Your task to perform on an android device: Go to CNN.com Image 0: 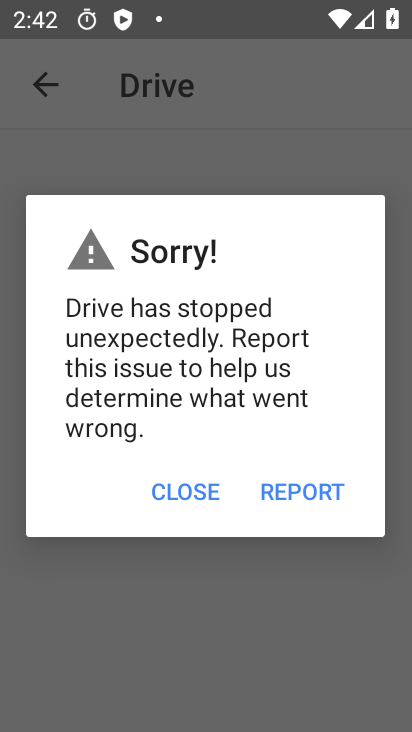
Step 0: press home button
Your task to perform on an android device: Go to CNN.com Image 1: 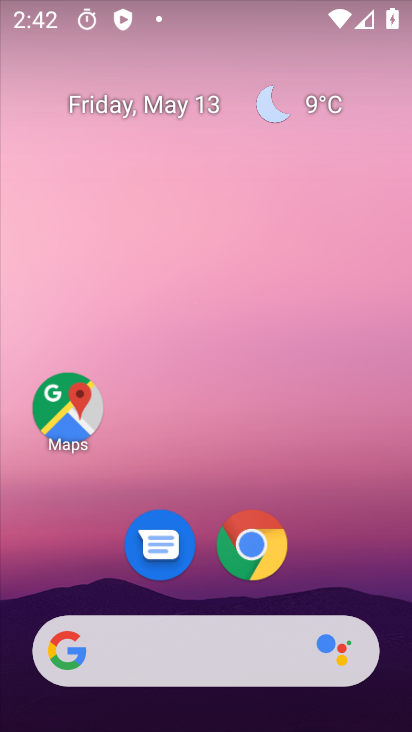
Step 1: click (260, 538)
Your task to perform on an android device: Go to CNN.com Image 2: 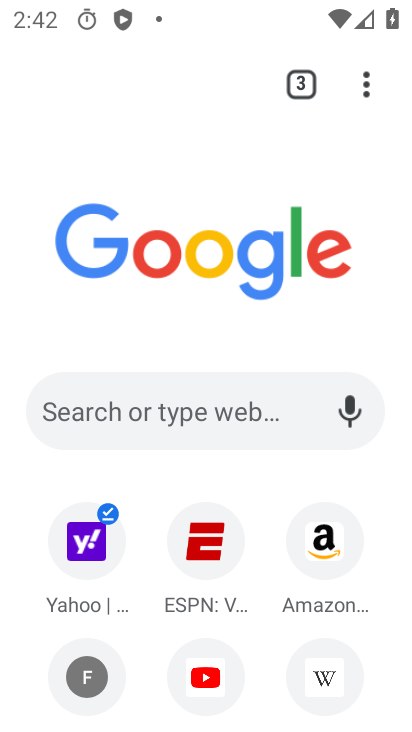
Step 2: click (226, 421)
Your task to perform on an android device: Go to CNN.com Image 3: 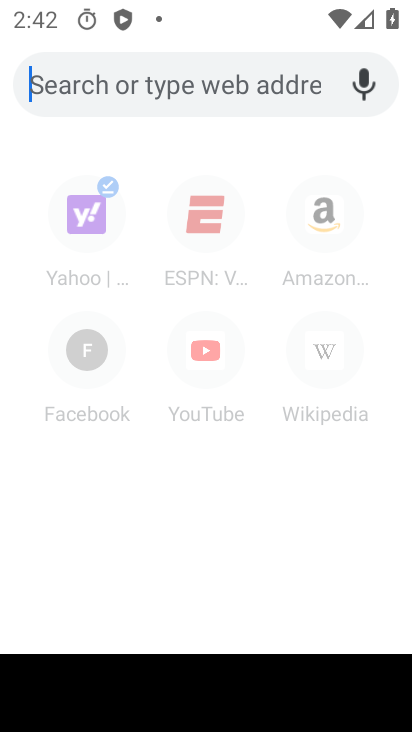
Step 3: type "CNN.com"
Your task to perform on an android device: Go to CNN.com Image 4: 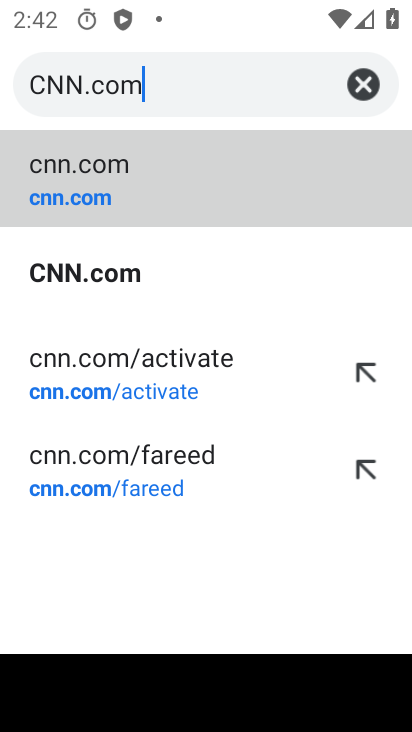
Step 4: click (62, 200)
Your task to perform on an android device: Go to CNN.com Image 5: 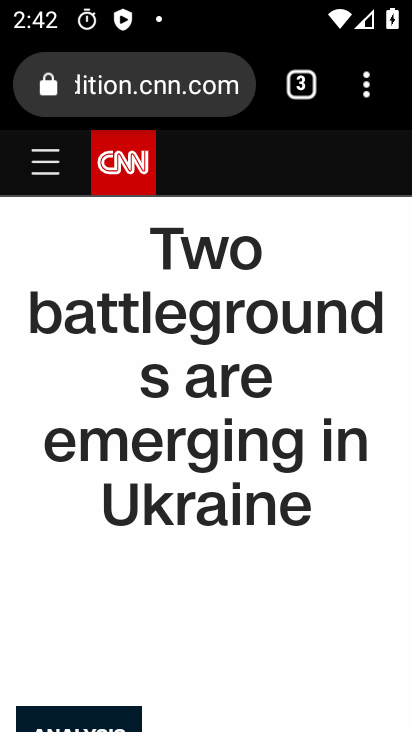
Step 5: task complete